Your task to perform on an android device: Turn off the flashlight Image 0: 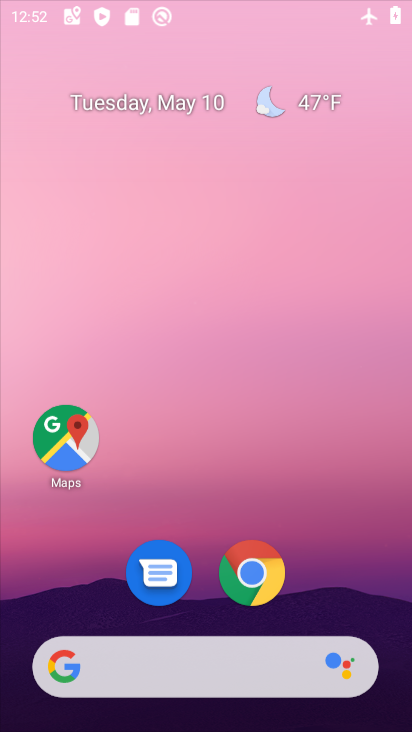
Step 0: click (375, 261)
Your task to perform on an android device: Turn off the flashlight Image 1: 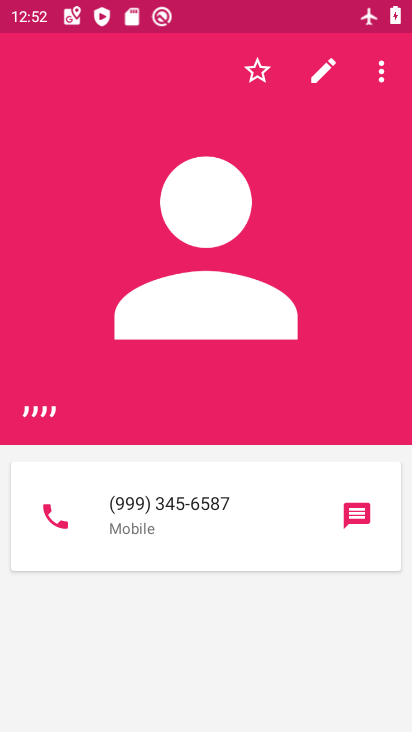
Step 1: press home button
Your task to perform on an android device: Turn off the flashlight Image 2: 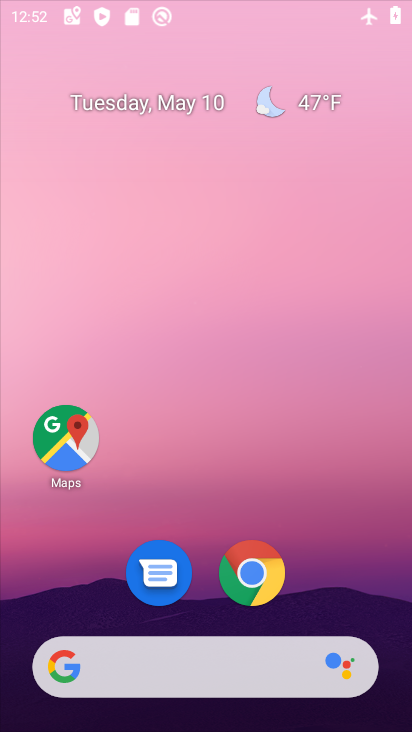
Step 2: drag from (175, 666) to (219, 329)
Your task to perform on an android device: Turn off the flashlight Image 3: 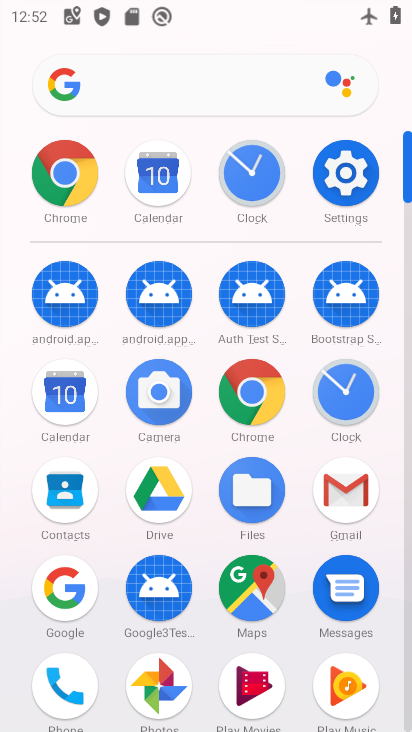
Step 3: click (348, 174)
Your task to perform on an android device: Turn off the flashlight Image 4: 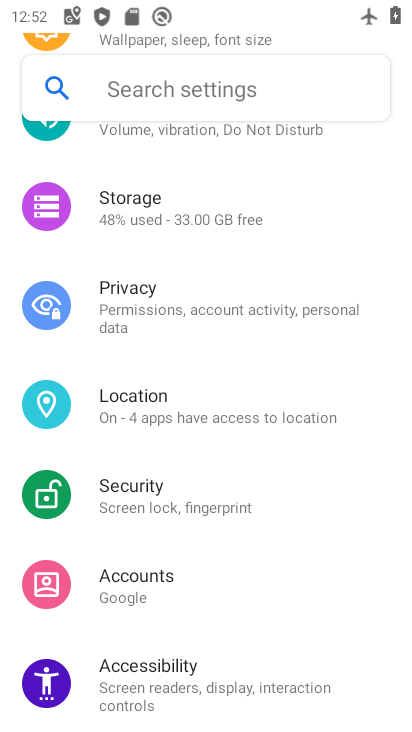
Step 4: click (251, 113)
Your task to perform on an android device: Turn off the flashlight Image 5: 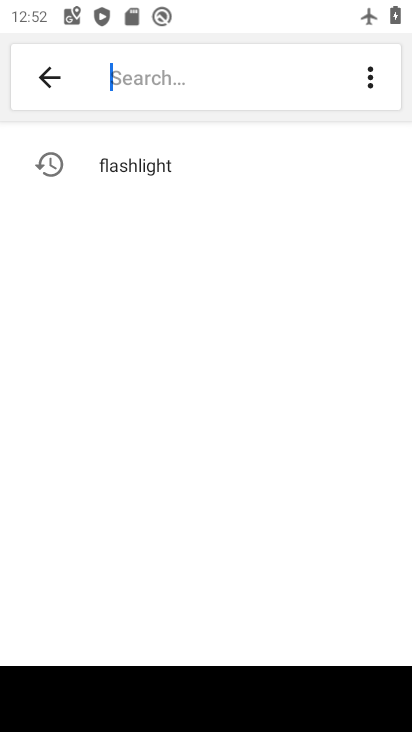
Step 5: click (163, 170)
Your task to perform on an android device: Turn off the flashlight Image 6: 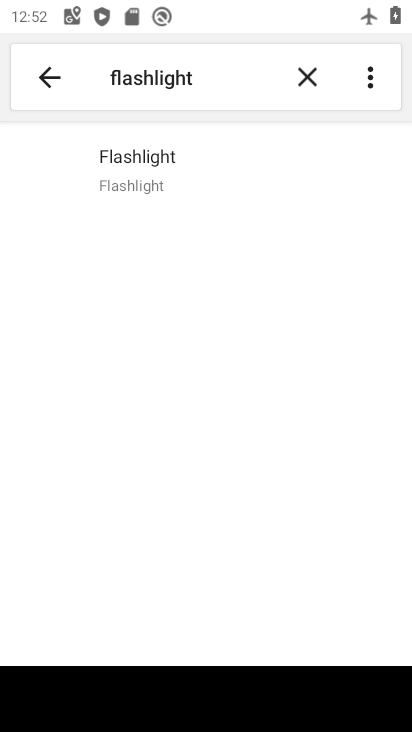
Step 6: task complete